Your task to perform on an android device: Check the news Image 0: 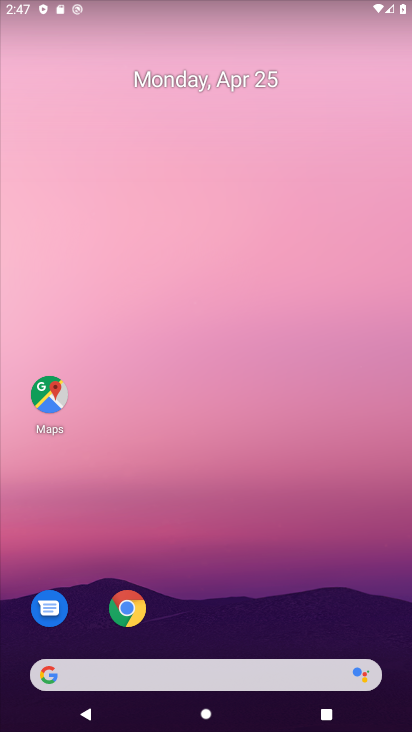
Step 0: drag from (29, 265) to (337, 189)
Your task to perform on an android device: Check the news Image 1: 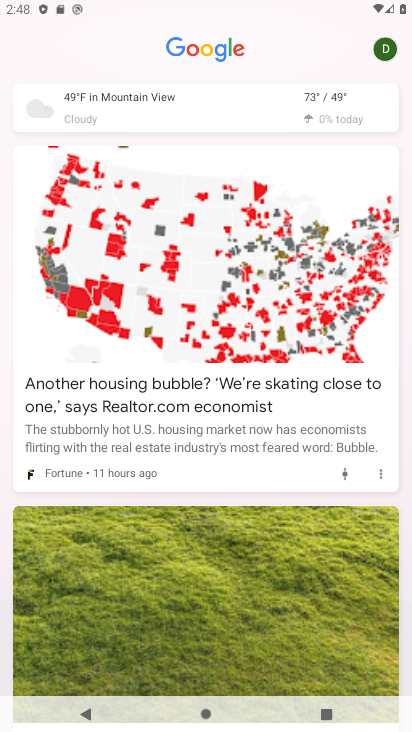
Step 1: task complete